Your task to perform on an android device: Open ESPN.com Image 0: 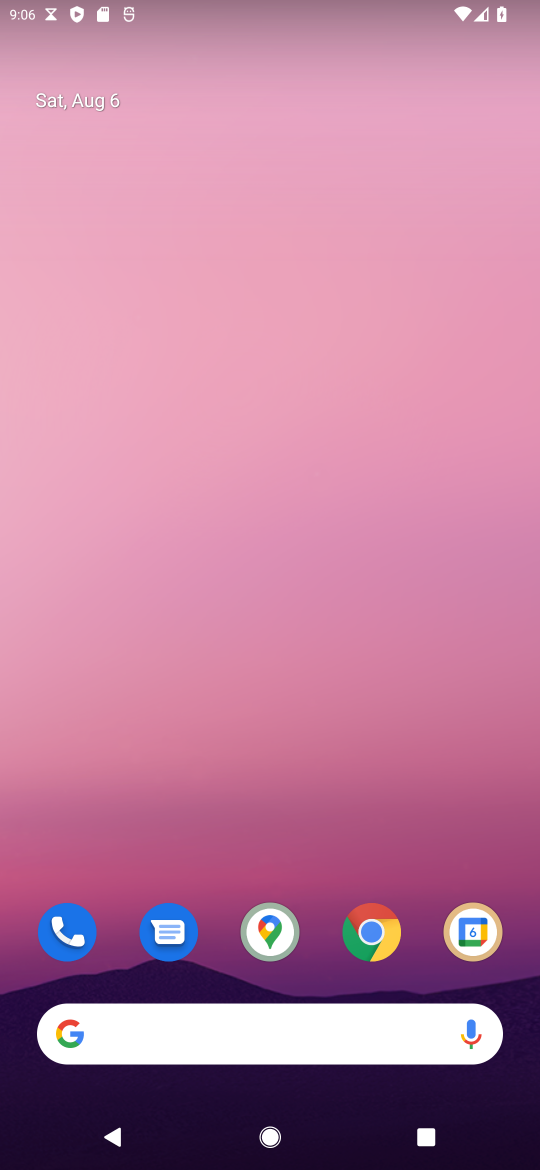
Step 0: click (375, 933)
Your task to perform on an android device: Open ESPN.com Image 1: 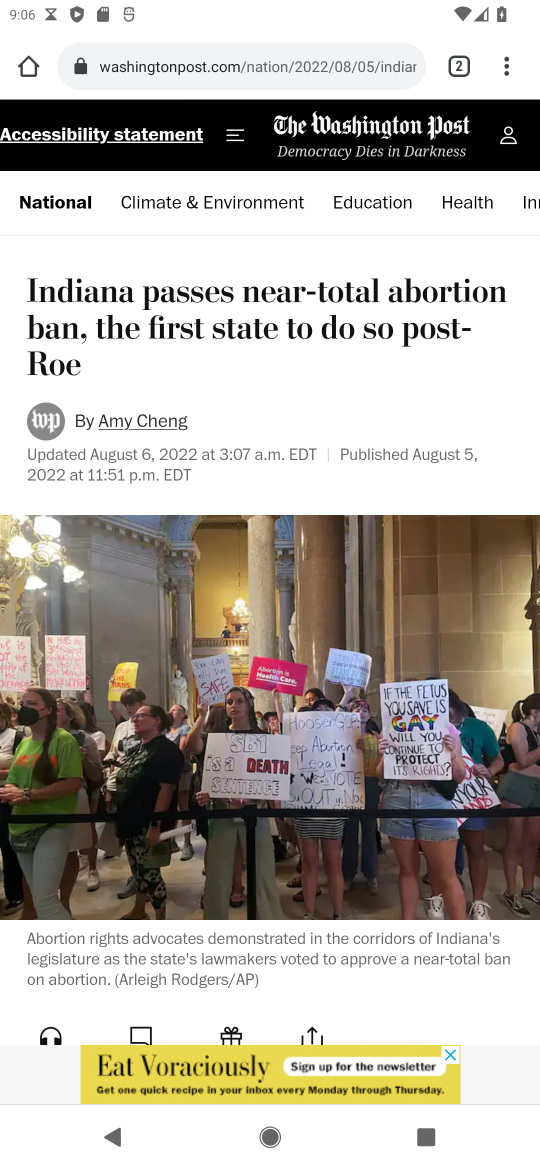
Step 1: click (338, 68)
Your task to perform on an android device: Open ESPN.com Image 2: 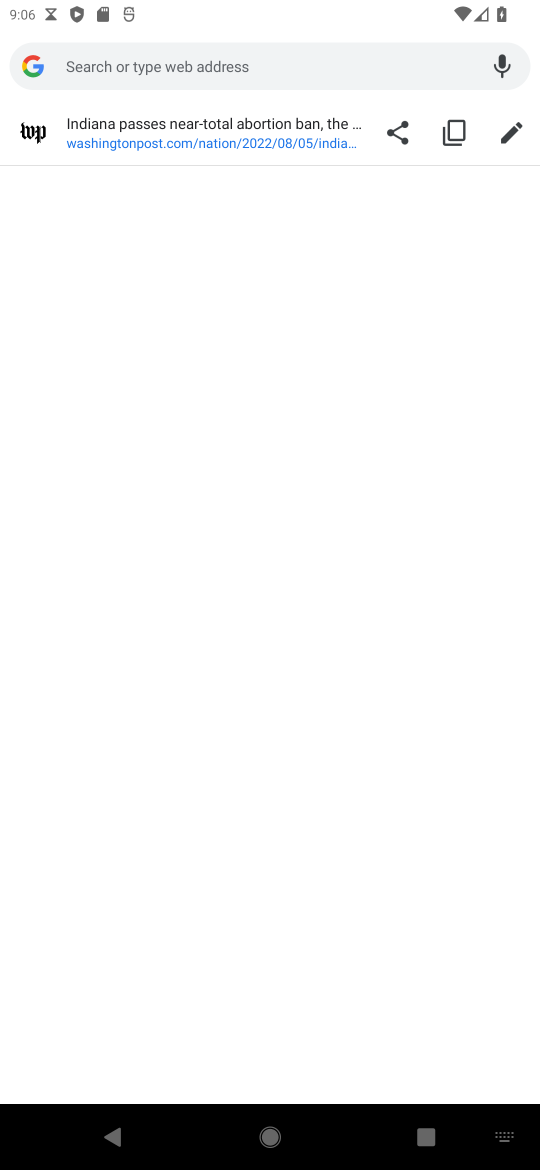
Step 2: type "ESPN.com"
Your task to perform on an android device: Open ESPN.com Image 3: 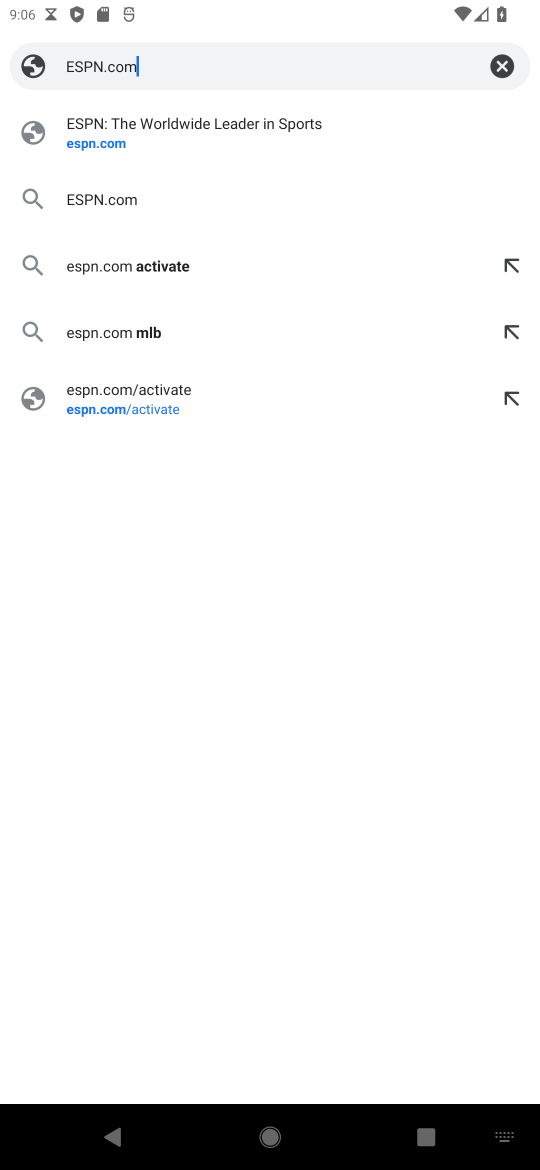
Step 3: click (103, 193)
Your task to perform on an android device: Open ESPN.com Image 4: 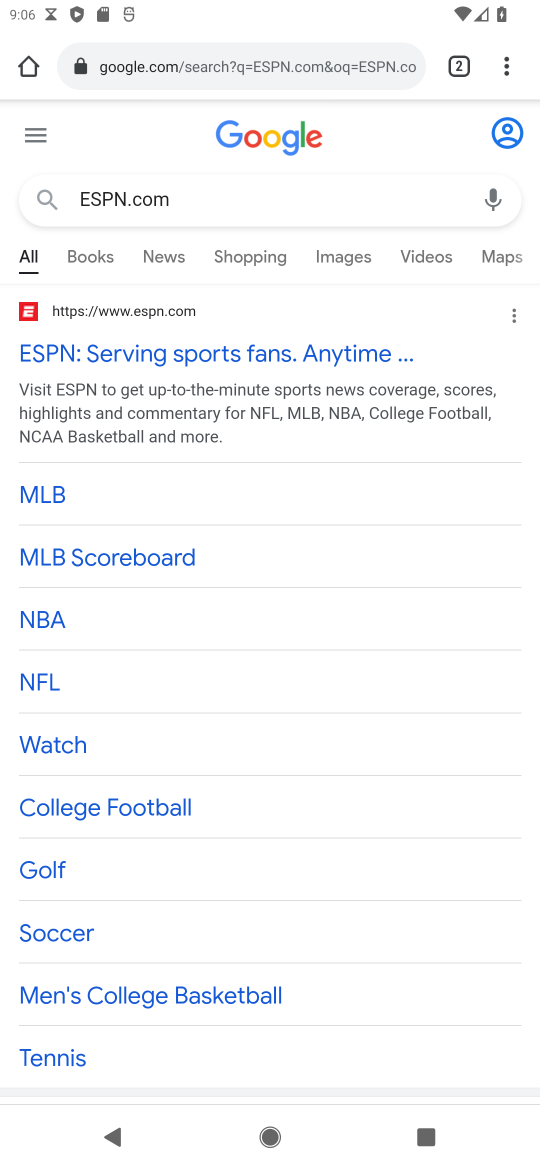
Step 4: click (137, 359)
Your task to perform on an android device: Open ESPN.com Image 5: 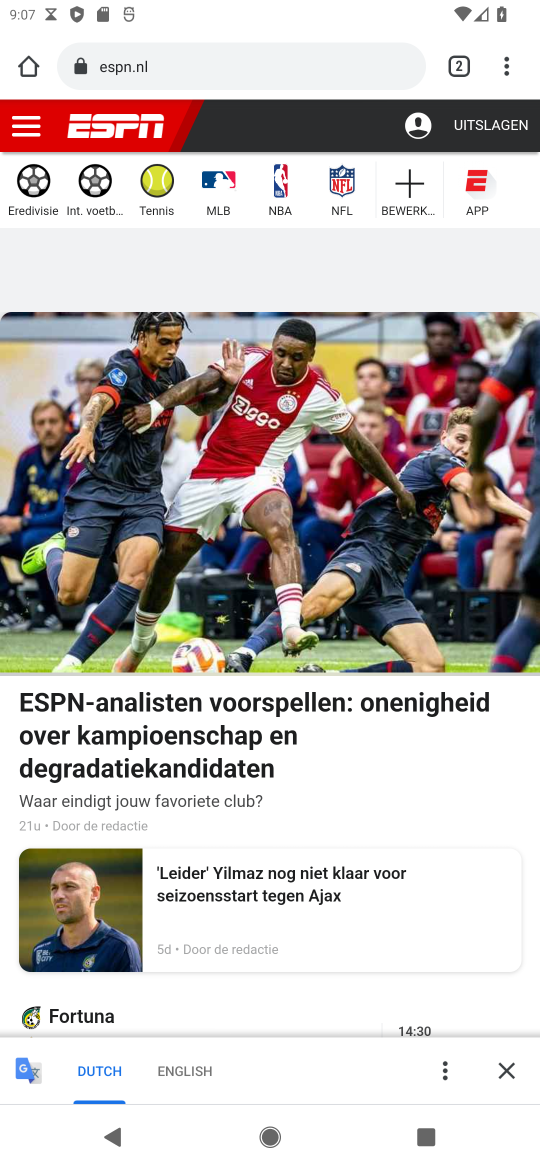
Step 5: task complete